Your task to perform on an android device: toggle notification dots Image 0: 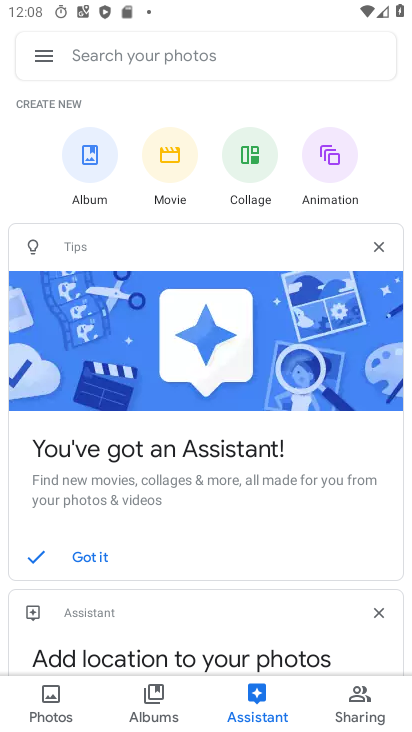
Step 0: press home button
Your task to perform on an android device: toggle notification dots Image 1: 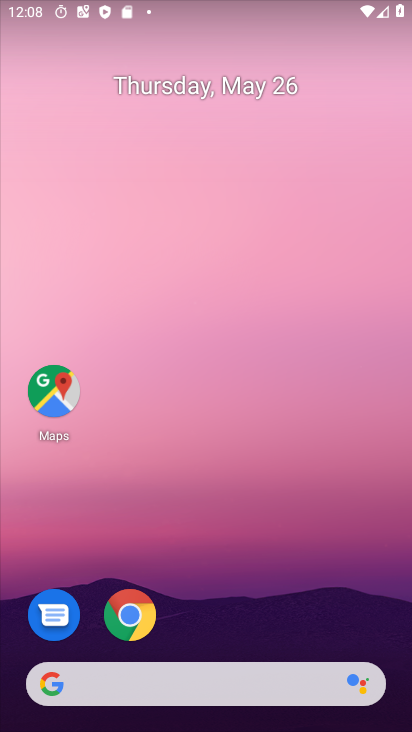
Step 1: drag from (293, 594) to (201, 230)
Your task to perform on an android device: toggle notification dots Image 2: 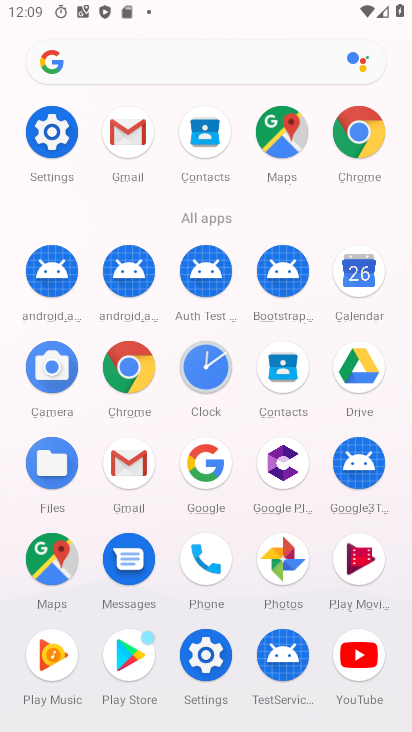
Step 2: click (64, 126)
Your task to perform on an android device: toggle notification dots Image 3: 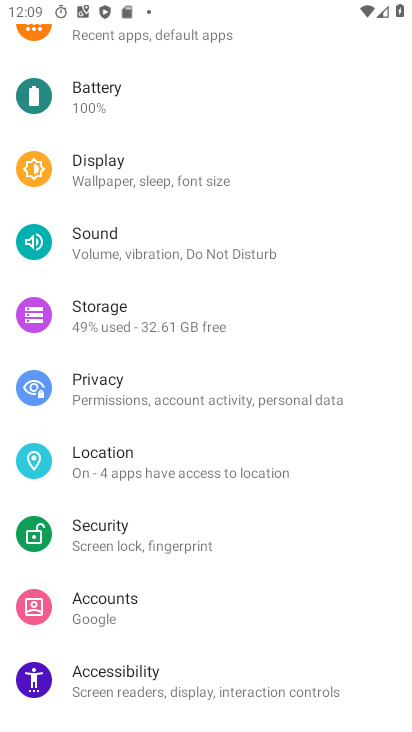
Step 3: drag from (175, 76) to (193, 391)
Your task to perform on an android device: toggle notification dots Image 4: 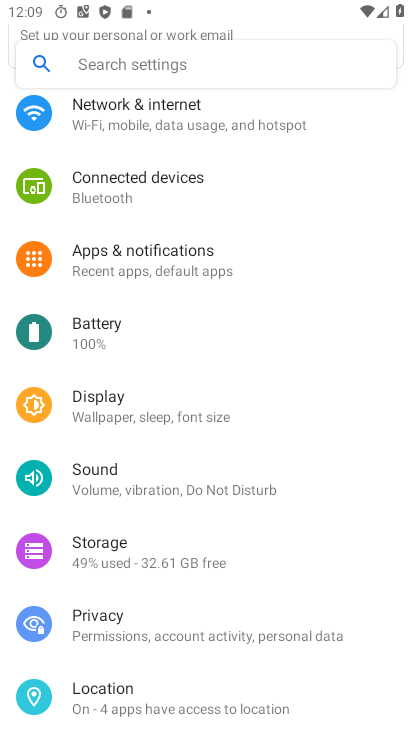
Step 4: click (180, 278)
Your task to perform on an android device: toggle notification dots Image 5: 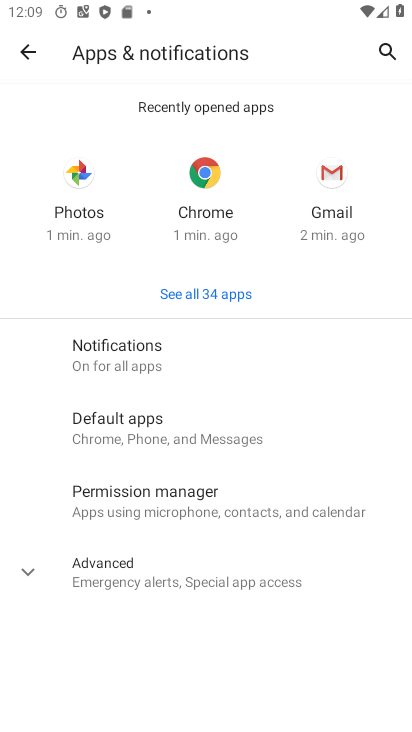
Step 5: click (205, 353)
Your task to perform on an android device: toggle notification dots Image 6: 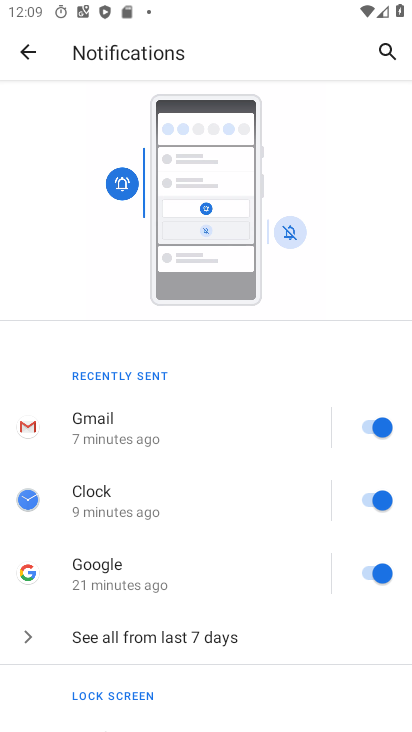
Step 6: drag from (294, 679) to (227, 285)
Your task to perform on an android device: toggle notification dots Image 7: 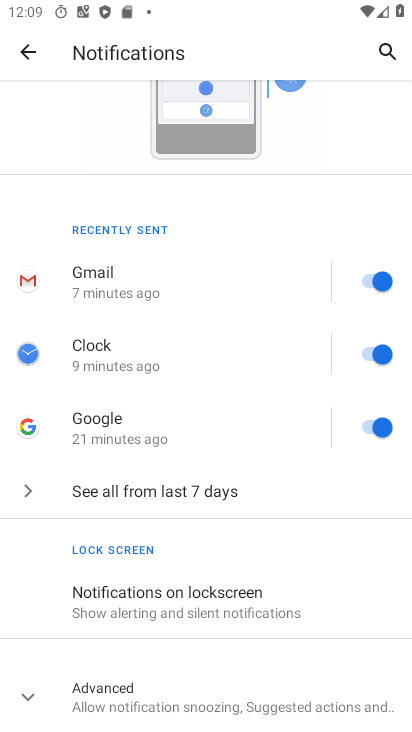
Step 7: click (349, 675)
Your task to perform on an android device: toggle notification dots Image 8: 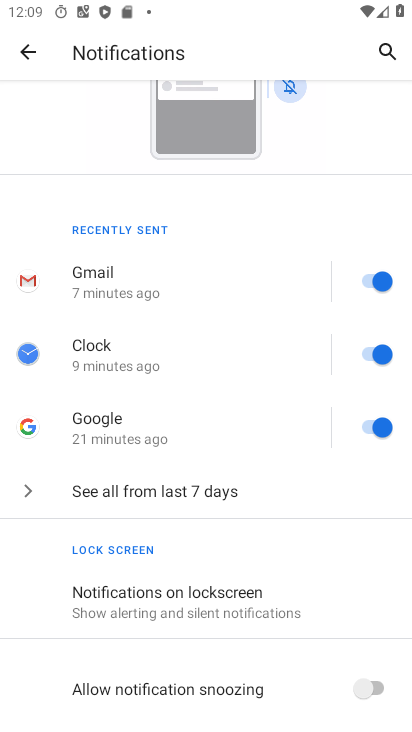
Step 8: drag from (289, 630) to (222, 342)
Your task to perform on an android device: toggle notification dots Image 9: 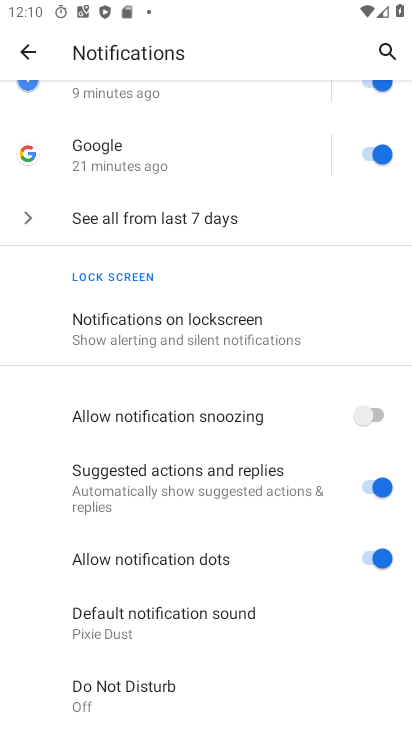
Step 9: click (380, 558)
Your task to perform on an android device: toggle notification dots Image 10: 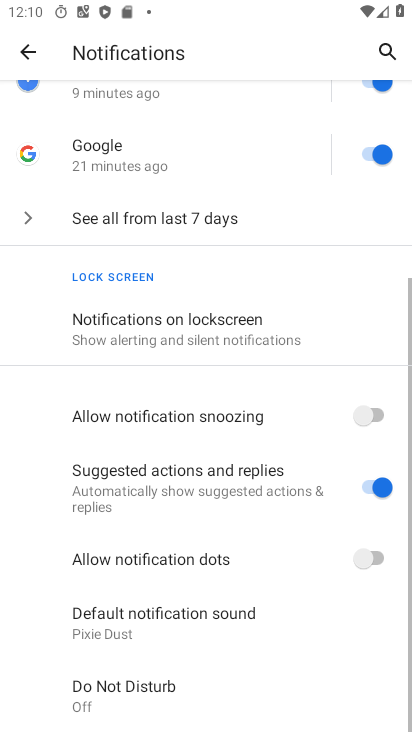
Step 10: task complete